Your task to perform on an android device: Open settings Image 0: 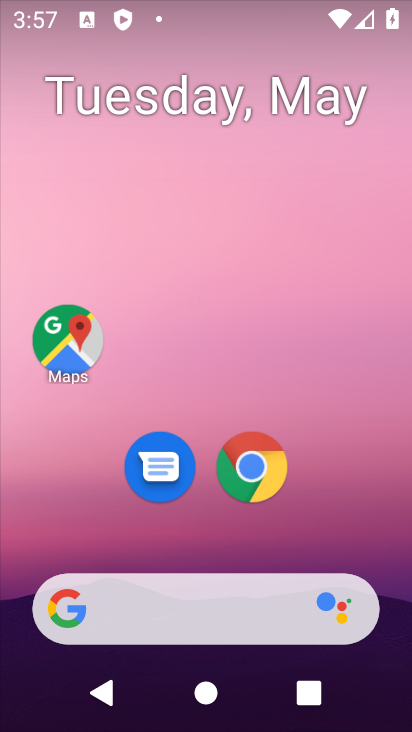
Step 0: task complete